Your task to perform on an android device: Go to Maps Image 0: 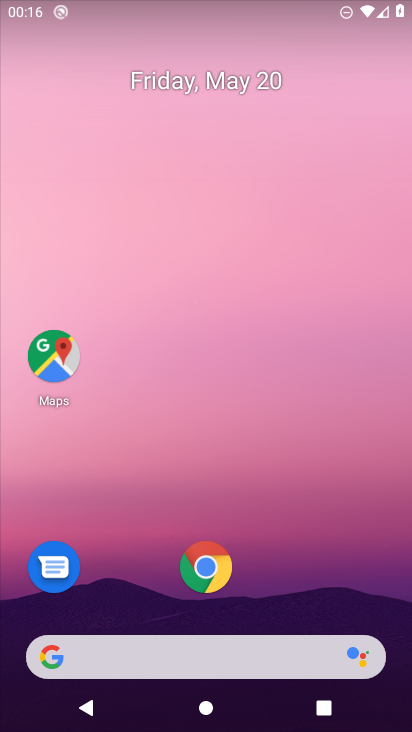
Step 0: click (58, 363)
Your task to perform on an android device: Go to Maps Image 1: 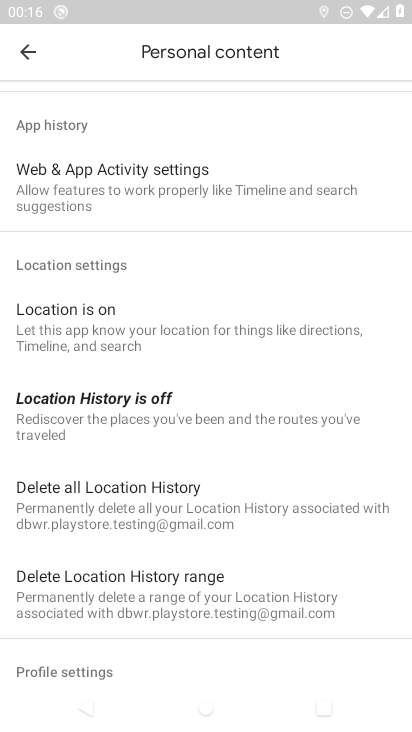
Step 1: click (31, 52)
Your task to perform on an android device: Go to Maps Image 2: 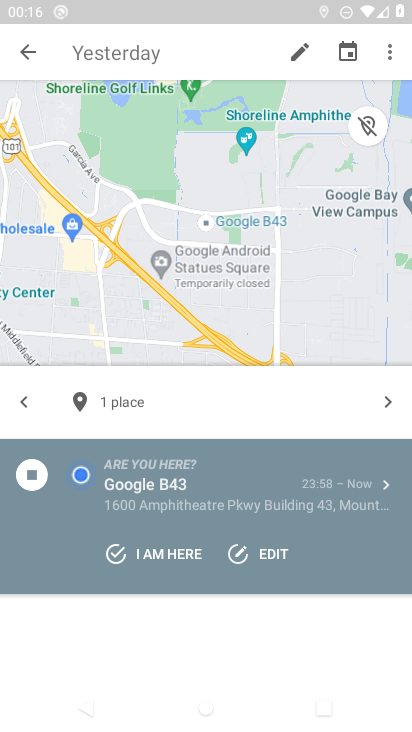
Step 2: click (24, 55)
Your task to perform on an android device: Go to Maps Image 3: 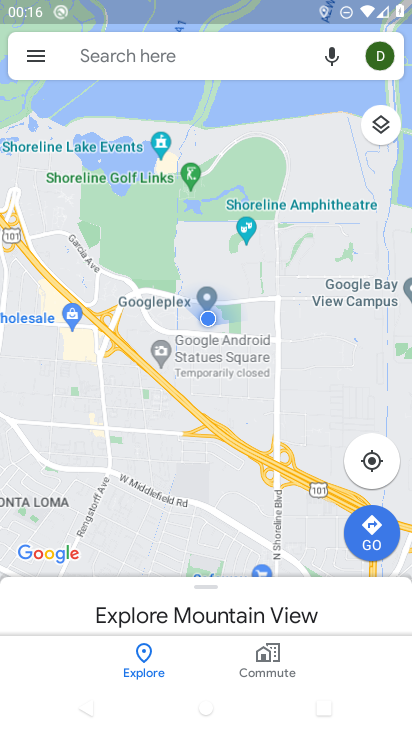
Step 3: task complete